Your task to perform on an android device: Open Google Chrome Image 0: 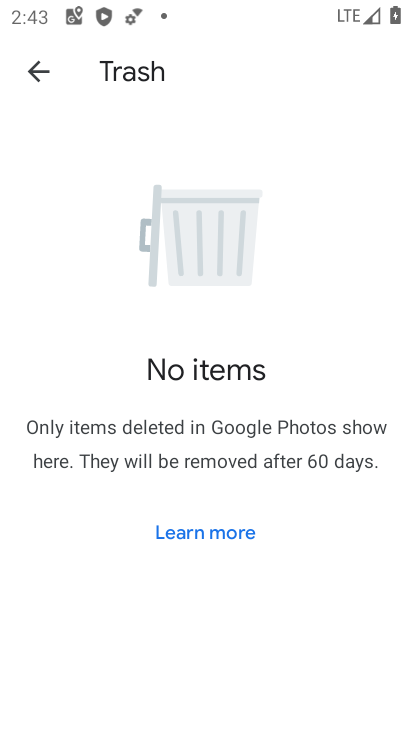
Step 0: press home button
Your task to perform on an android device: Open Google Chrome Image 1: 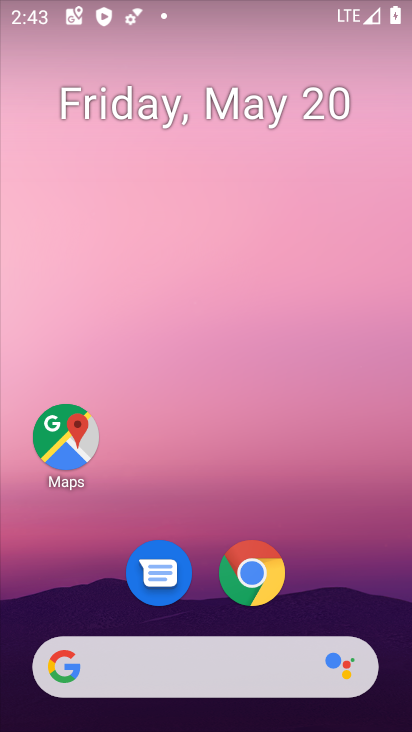
Step 1: click (276, 573)
Your task to perform on an android device: Open Google Chrome Image 2: 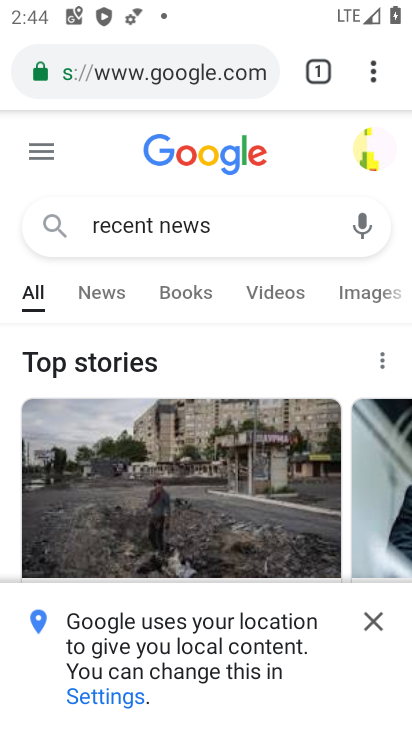
Step 2: task complete